Your task to perform on an android device: Open calendar and show me the third week of next month Image 0: 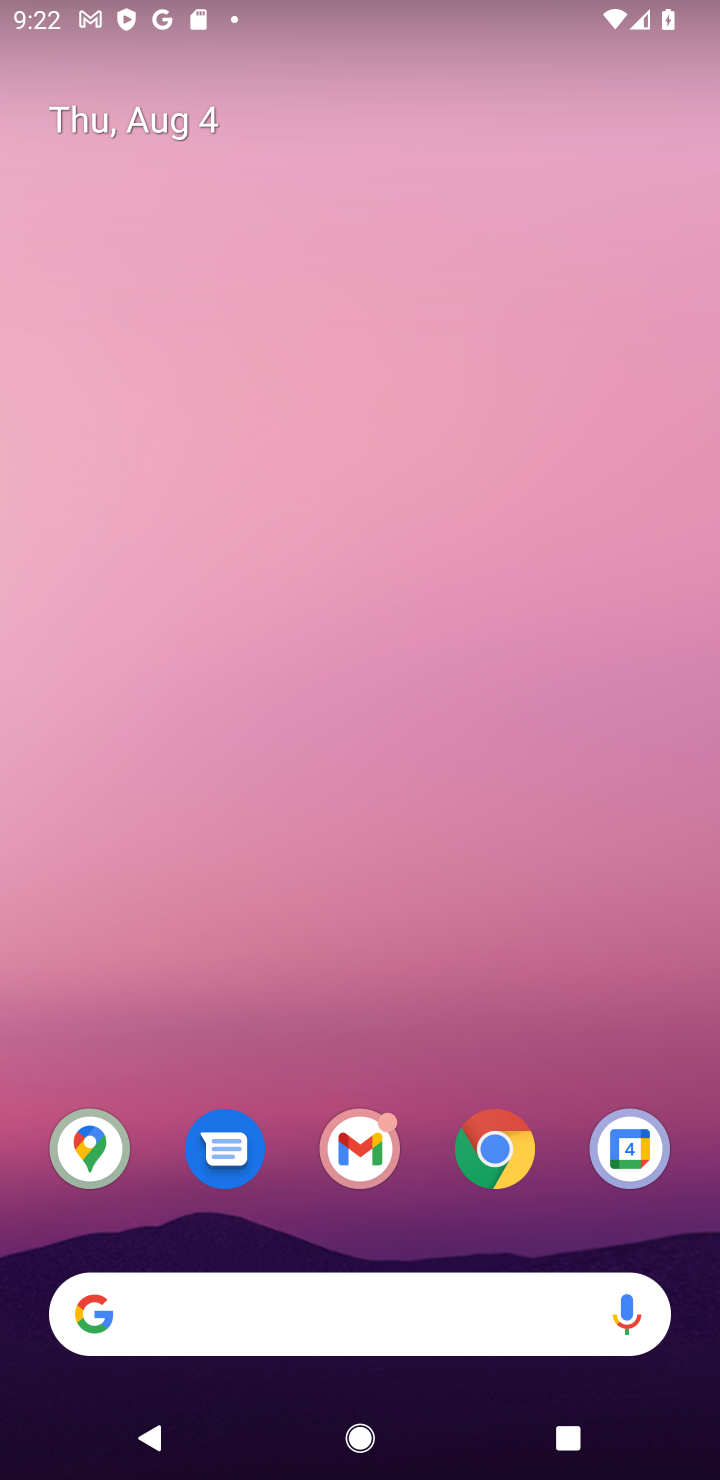
Step 0: click (628, 1148)
Your task to perform on an android device: Open calendar and show me the third week of next month Image 1: 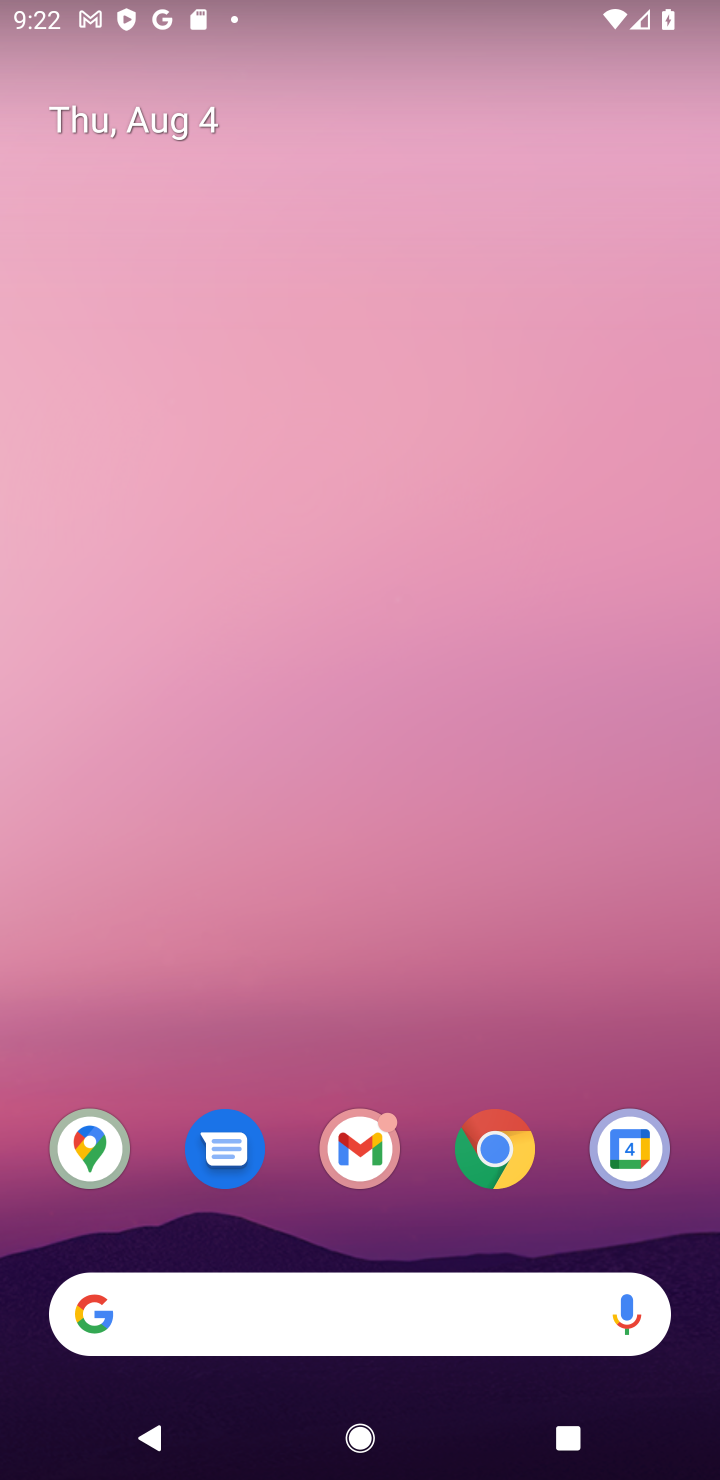
Step 1: click (622, 1145)
Your task to perform on an android device: Open calendar and show me the third week of next month Image 2: 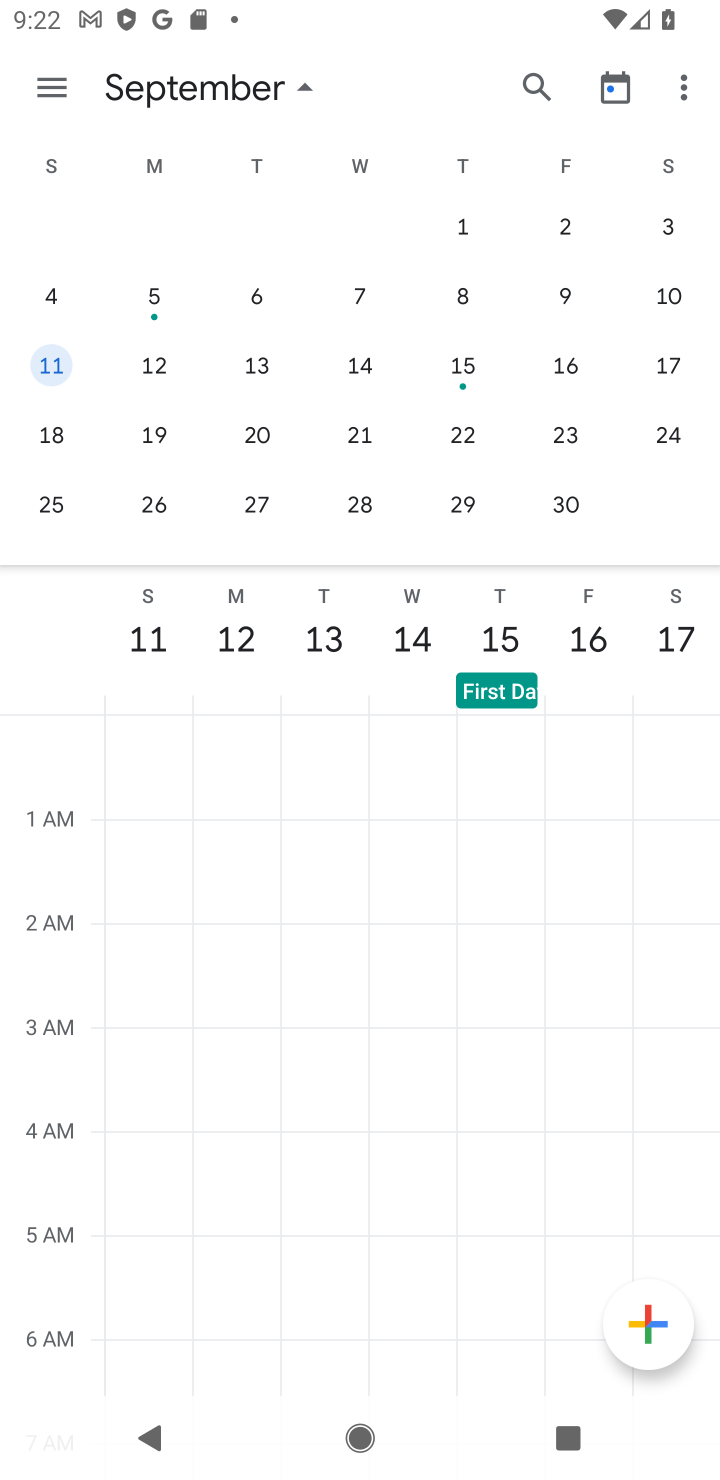
Step 2: click (51, 439)
Your task to perform on an android device: Open calendar and show me the third week of next month Image 3: 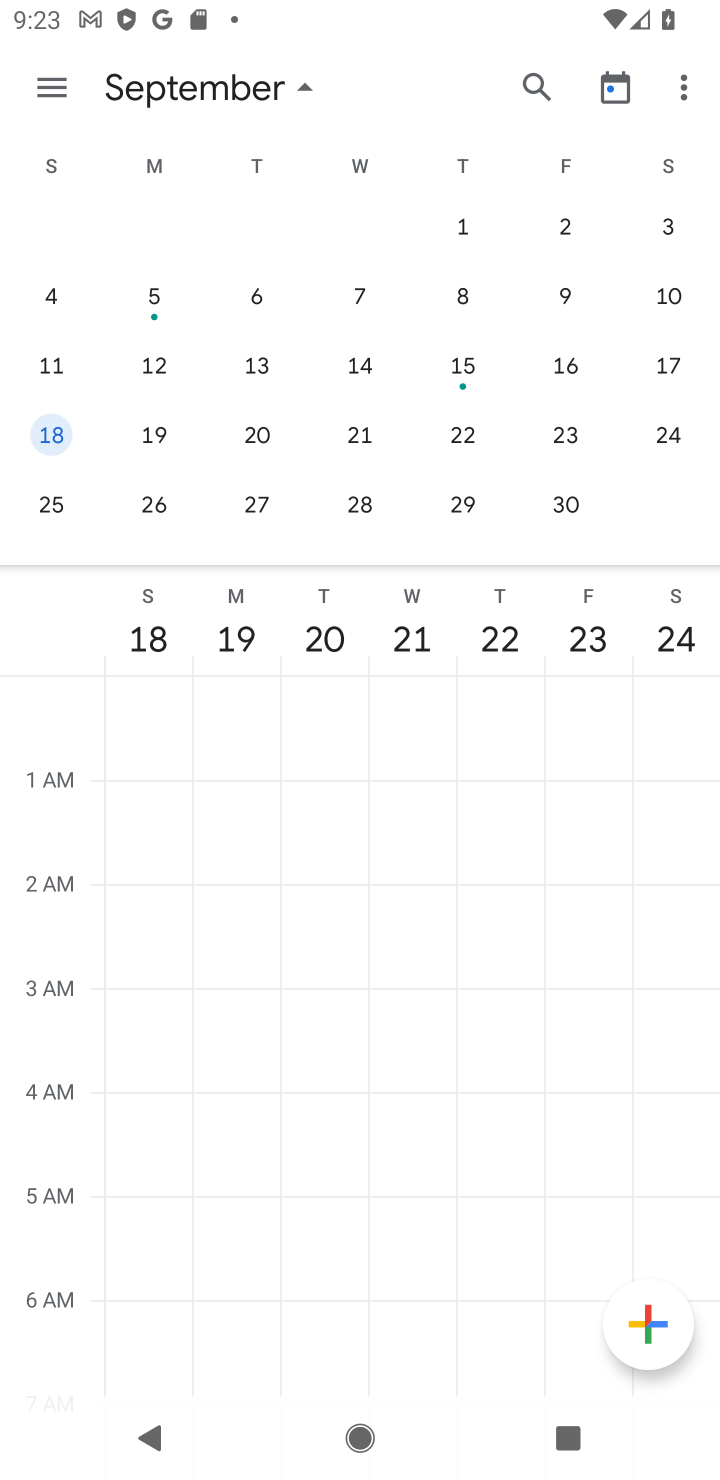
Step 3: task complete